Your task to perform on an android device: snooze an email in the gmail app Image 0: 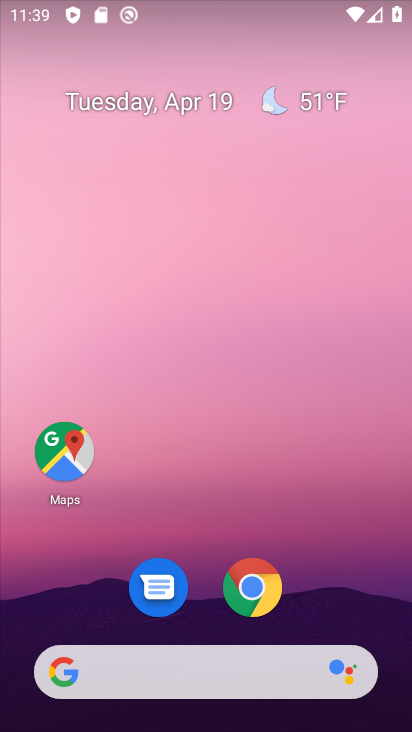
Step 0: drag from (196, 548) to (228, 104)
Your task to perform on an android device: snooze an email in the gmail app Image 1: 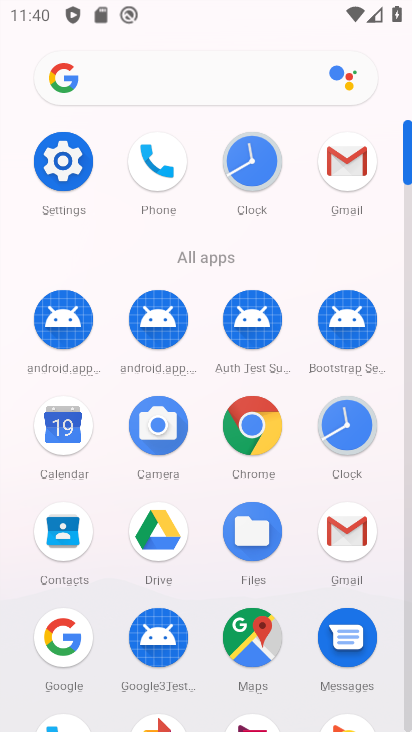
Step 1: click (324, 178)
Your task to perform on an android device: snooze an email in the gmail app Image 2: 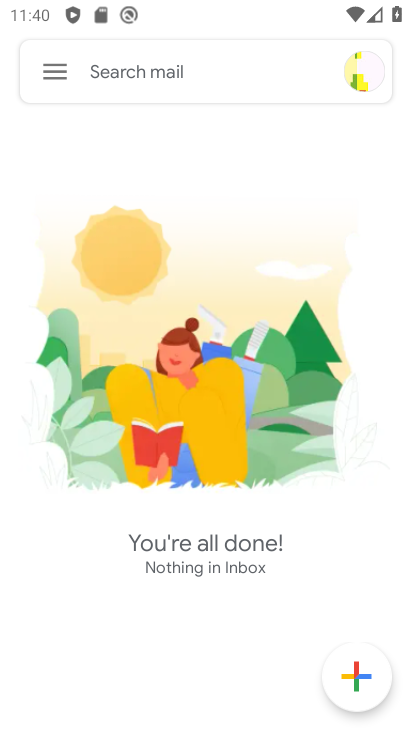
Step 2: task complete